Your task to perform on an android device: Search for "alienware area 51" on ebay, select the first entry, add it to the cart, then select checkout. Image 0: 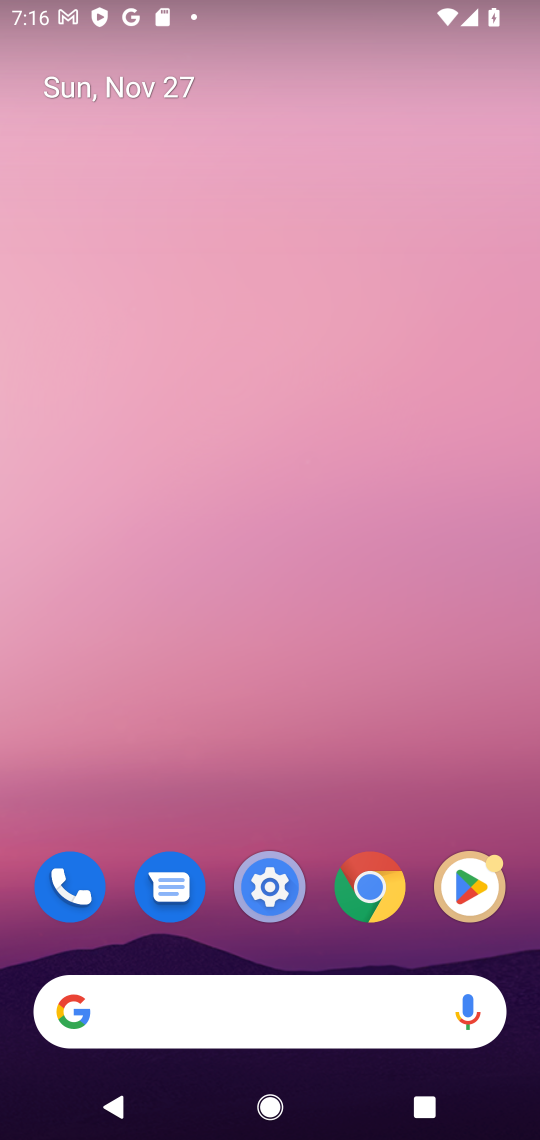
Step 0: press home button
Your task to perform on an android device: Search for "alienware area 51" on ebay, select the first entry, add it to the cart, then select checkout. Image 1: 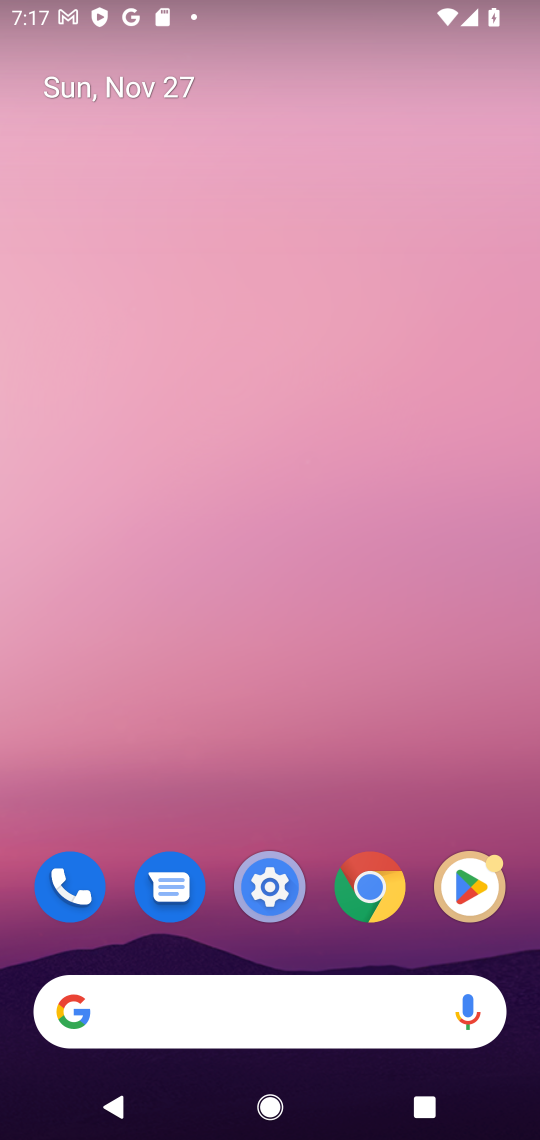
Step 1: click (399, 1028)
Your task to perform on an android device: Search for "alienware area 51" on ebay, select the first entry, add it to the cart, then select checkout. Image 2: 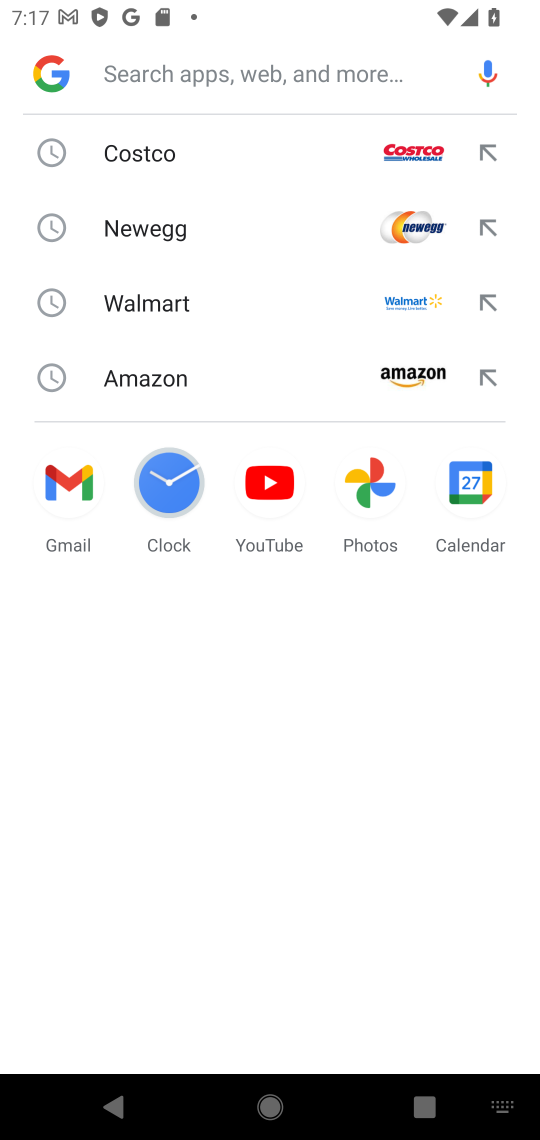
Step 2: type "alienware area 51"
Your task to perform on an android device: Search for "alienware area 51" on ebay, select the first entry, add it to the cart, then select checkout. Image 3: 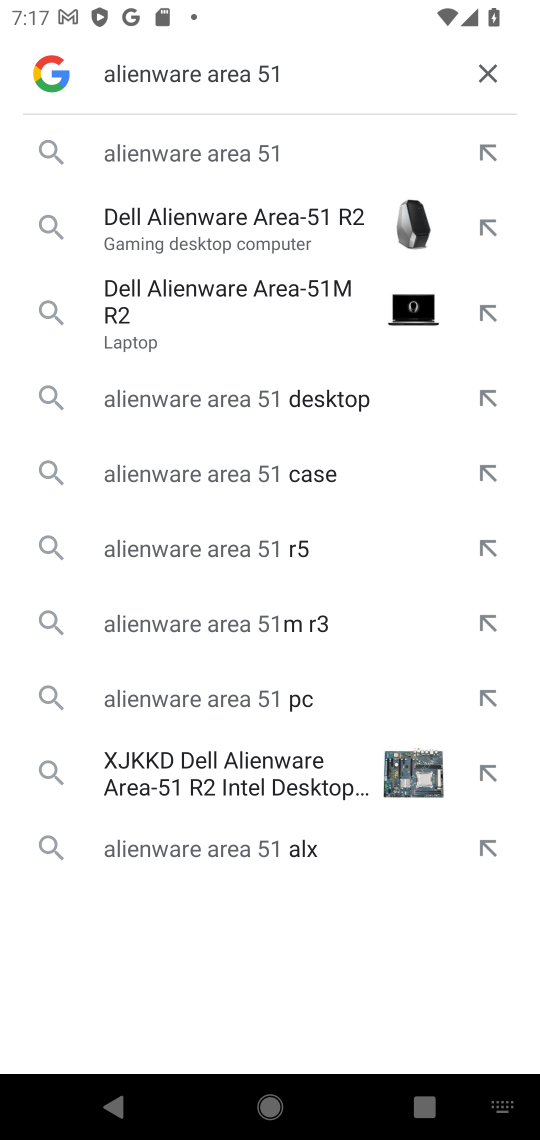
Step 3: click (283, 265)
Your task to perform on an android device: Search for "alienware area 51" on ebay, select the first entry, add it to the cart, then select checkout. Image 4: 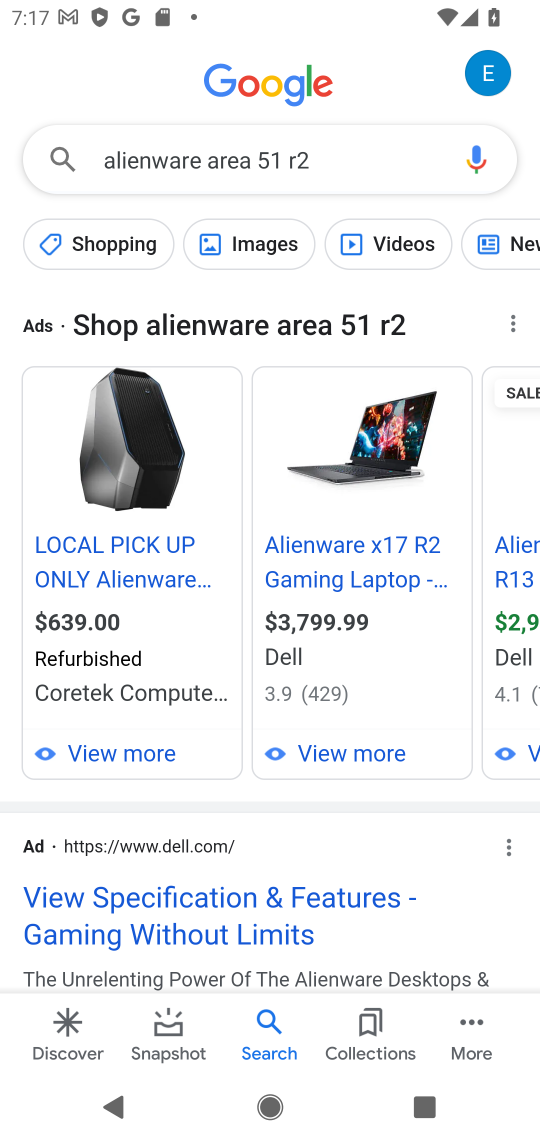
Step 4: click (234, 878)
Your task to perform on an android device: Search for "alienware area 51" on ebay, select the first entry, add it to the cart, then select checkout. Image 5: 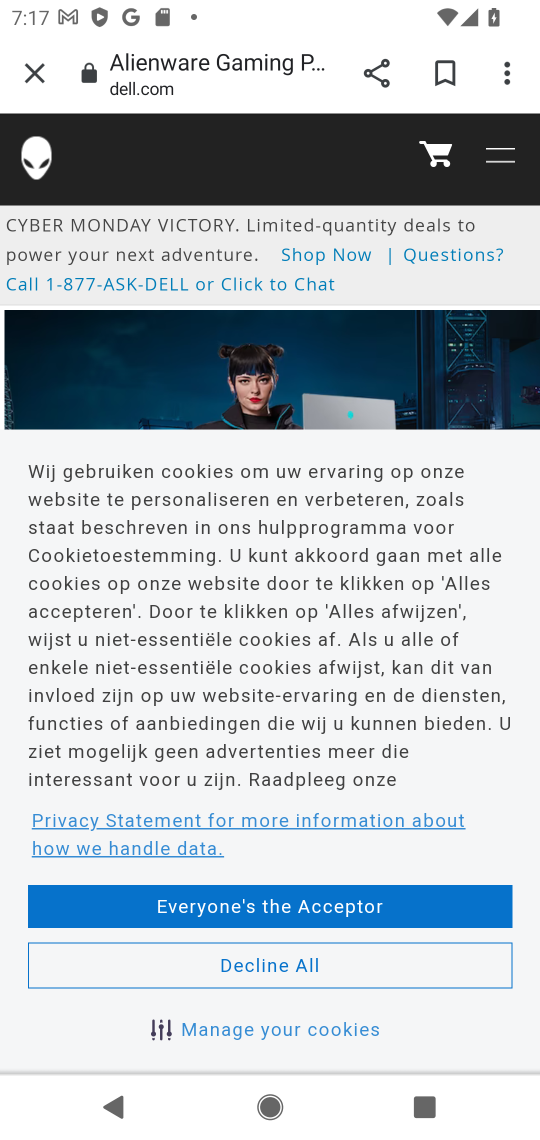
Step 5: click (286, 971)
Your task to perform on an android device: Search for "alienware area 51" on ebay, select the first entry, add it to the cart, then select checkout. Image 6: 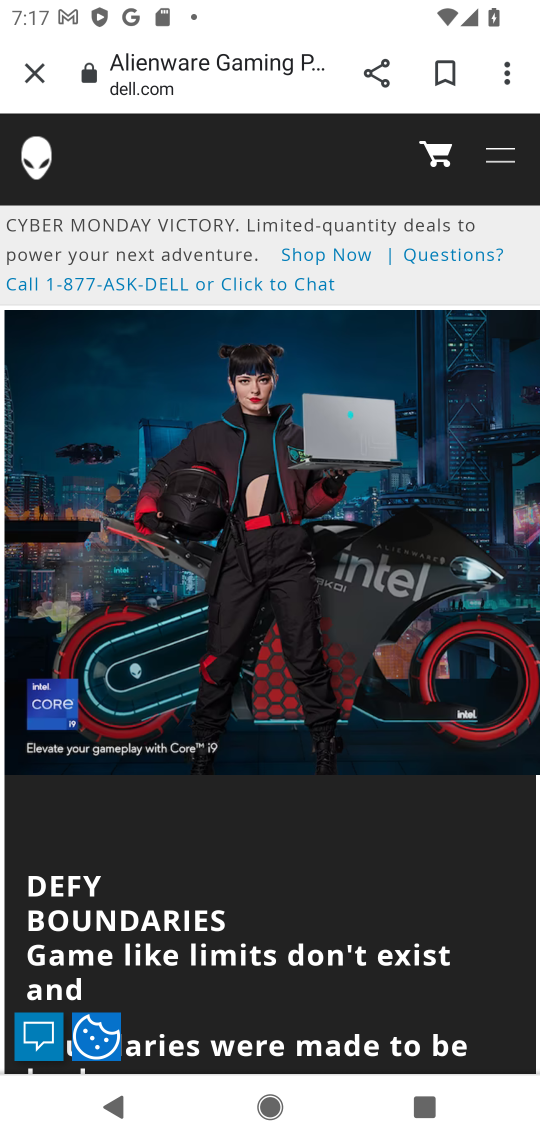
Step 6: task complete